Your task to perform on an android device: change the clock style Image 0: 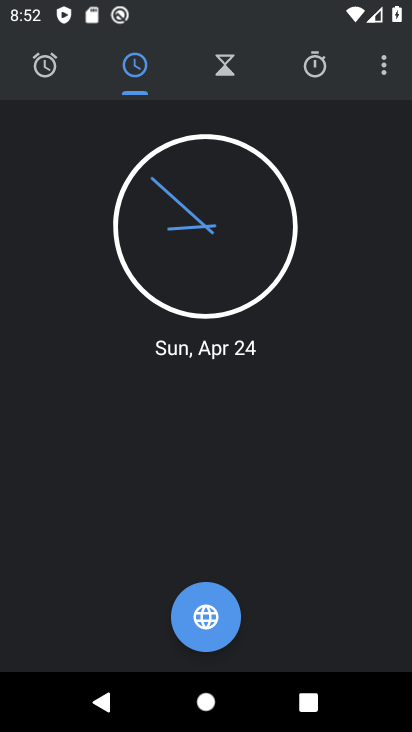
Step 0: press home button
Your task to perform on an android device: change the clock style Image 1: 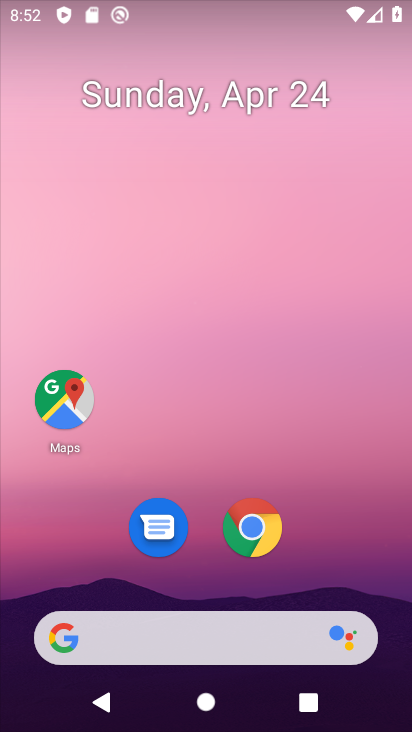
Step 1: drag from (390, 603) to (236, 95)
Your task to perform on an android device: change the clock style Image 2: 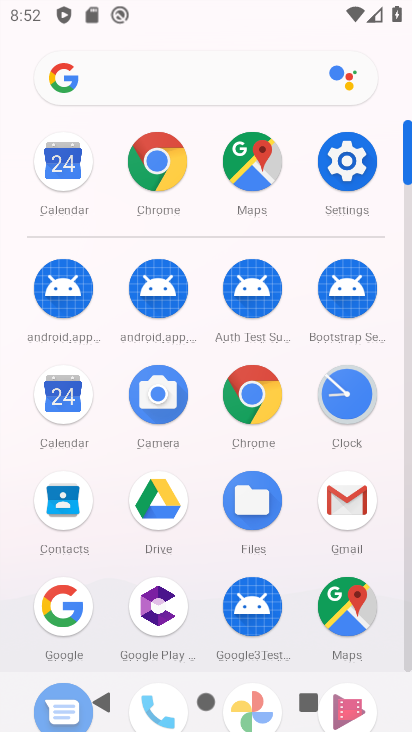
Step 2: click (360, 399)
Your task to perform on an android device: change the clock style Image 3: 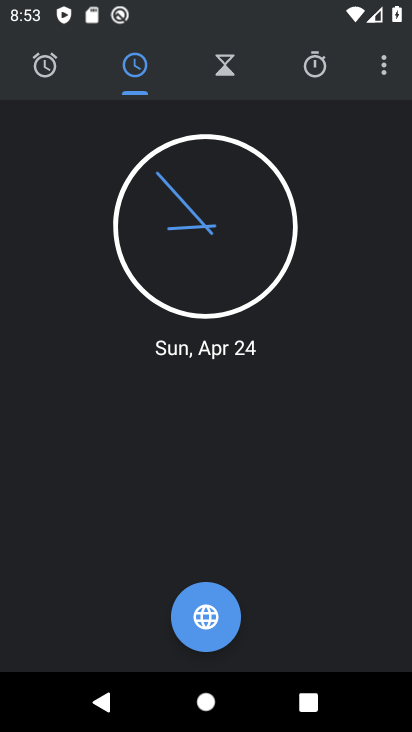
Step 3: click (383, 64)
Your task to perform on an android device: change the clock style Image 4: 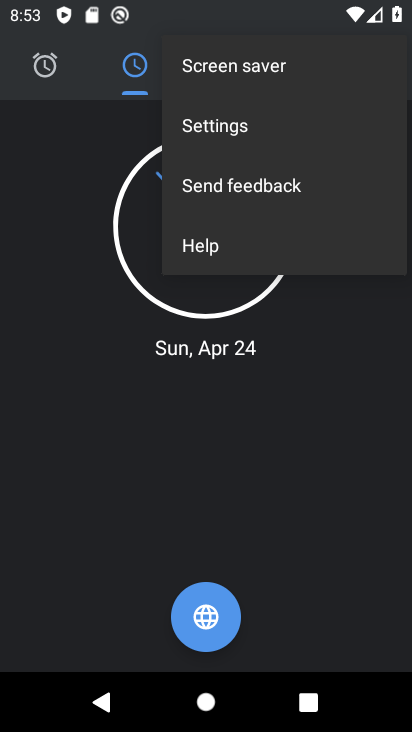
Step 4: click (296, 128)
Your task to perform on an android device: change the clock style Image 5: 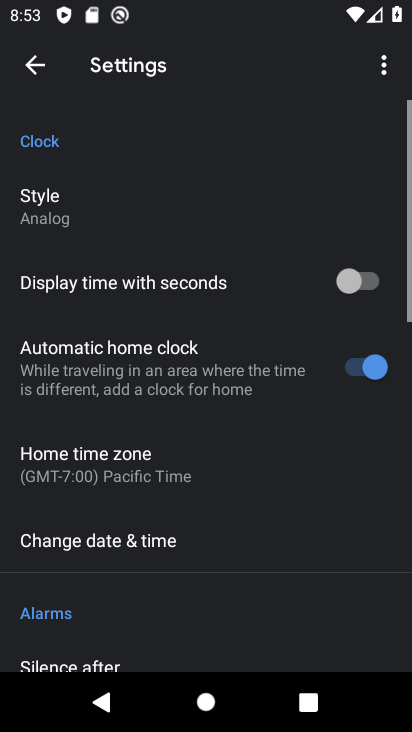
Step 5: click (127, 211)
Your task to perform on an android device: change the clock style Image 6: 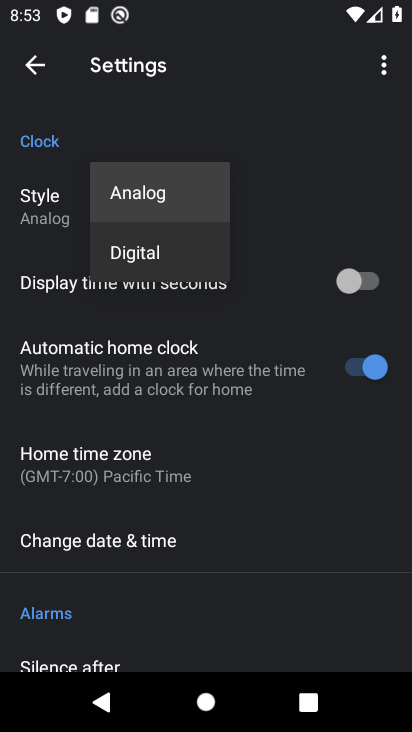
Step 6: click (153, 254)
Your task to perform on an android device: change the clock style Image 7: 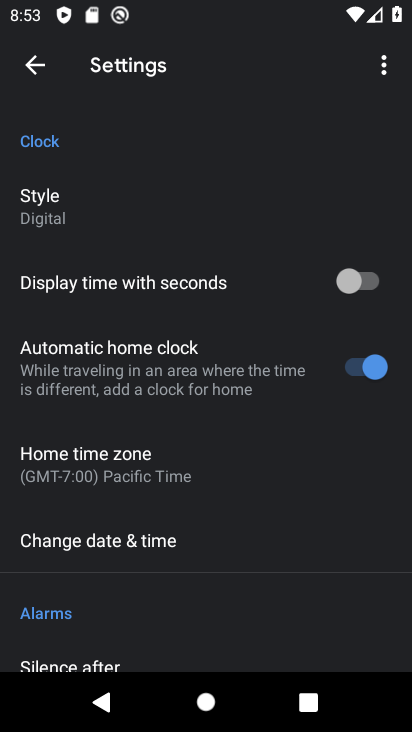
Step 7: task complete